Your task to perform on an android device: turn on location history Image 0: 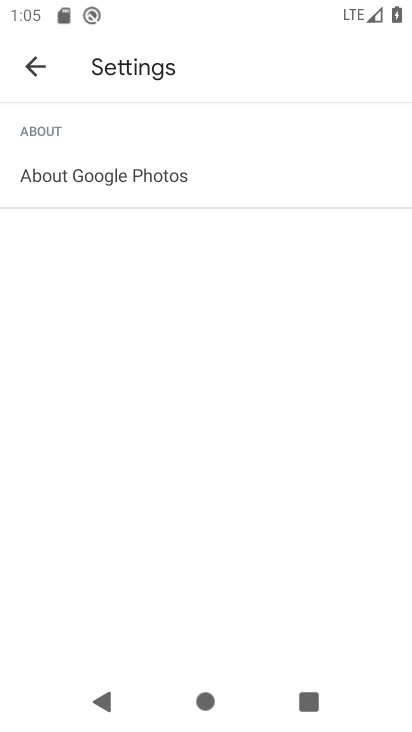
Step 0: press home button
Your task to perform on an android device: turn on location history Image 1: 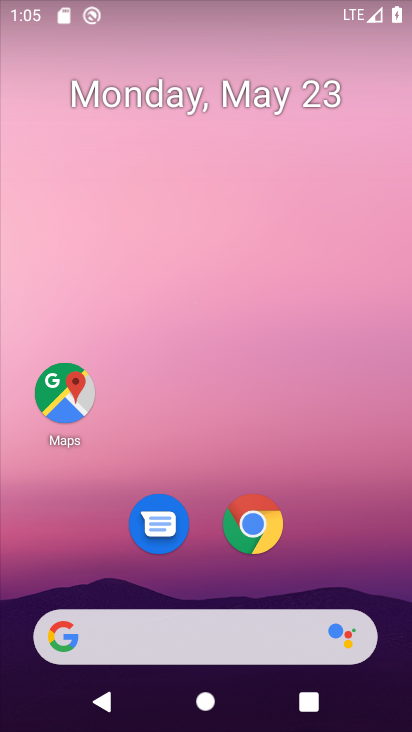
Step 1: drag from (280, 417) to (241, 36)
Your task to perform on an android device: turn on location history Image 2: 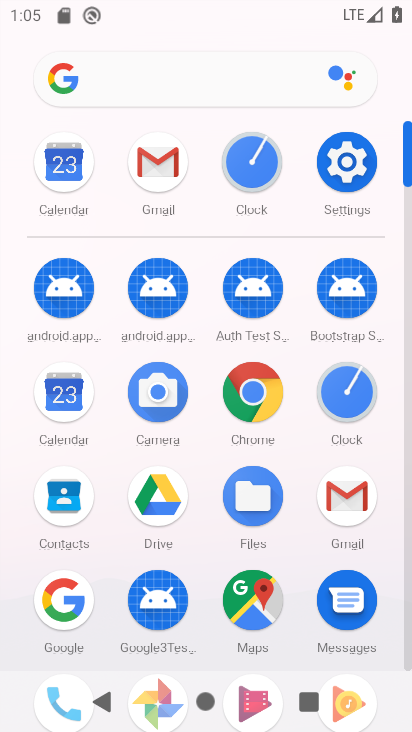
Step 2: click (335, 169)
Your task to perform on an android device: turn on location history Image 3: 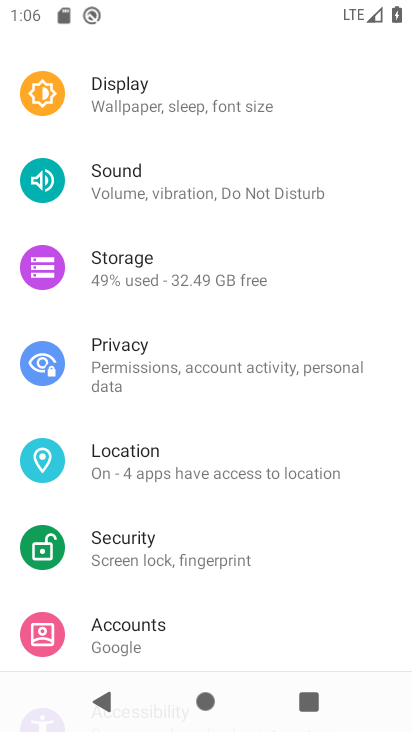
Step 3: click (207, 445)
Your task to perform on an android device: turn on location history Image 4: 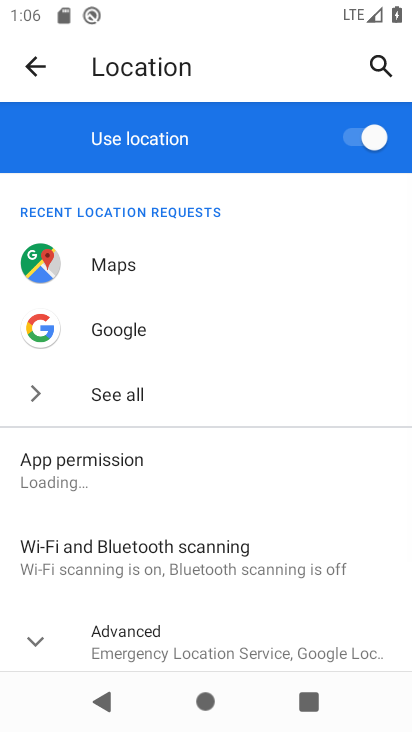
Step 4: drag from (149, 523) to (158, 186)
Your task to perform on an android device: turn on location history Image 5: 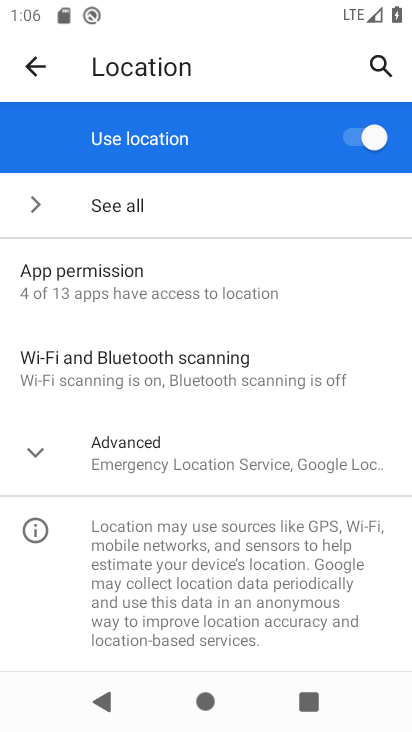
Step 5: click (35, 452)
Your task to perform on an android device: turn on location history Image 6: 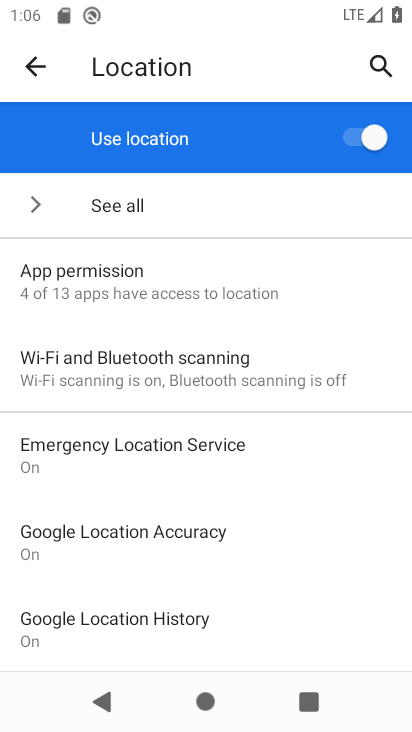
Step 6: task complete